Your task to perform on an android device: turn vacation reply on in the gmail app Image 0: 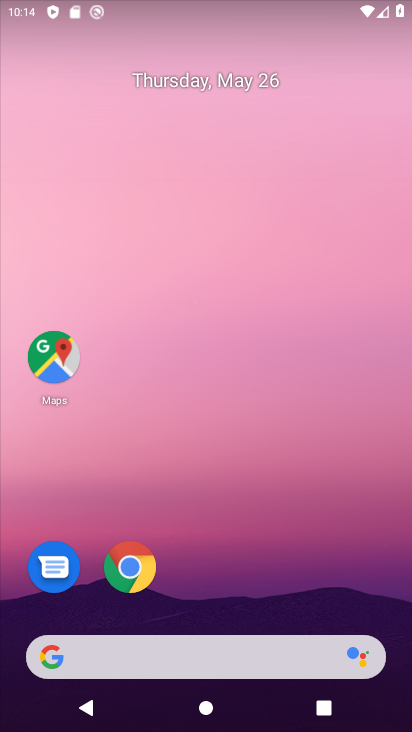
Step 0: drag from (229, 570) to (251, 0)
Your task to perform on an android device: turn vacation reply on in the gmail app Image 1: 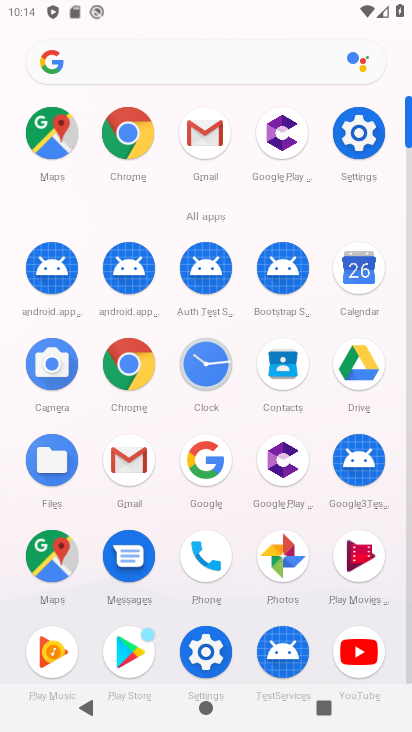
Step 1: click (127, 465)
Your task to perform on an android device: turn vacation reply on in the gmail app Image 2: 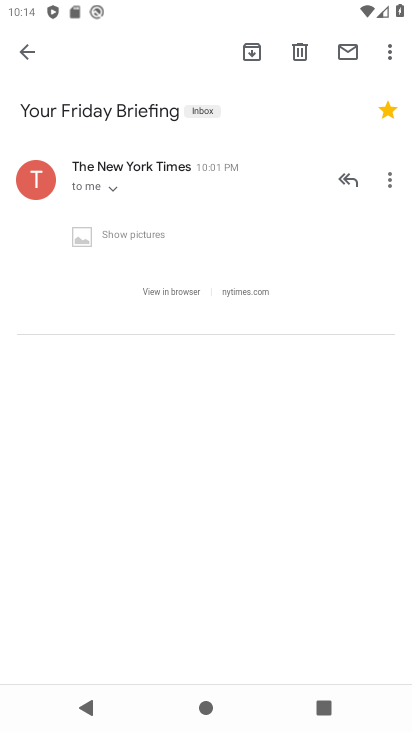
Step 2: click (25, 44)
Your task to perform on an android device: turn vacation reply on in the gmail app Image 3: 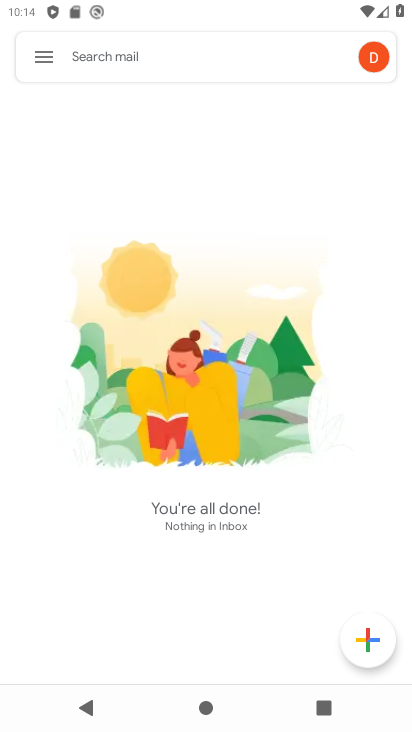
Step 3: click (41, 57)
Your task to perform on an android device: turn vacation reply on in the gmail app Image 4: 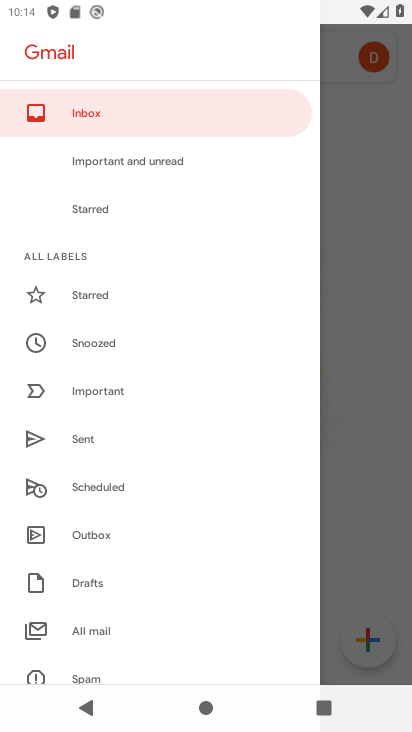
Step 4: drag from (164, 220) to (215, 20)
Your task to perform on an android device: turn vacation reply on in the gmail app Image 5: 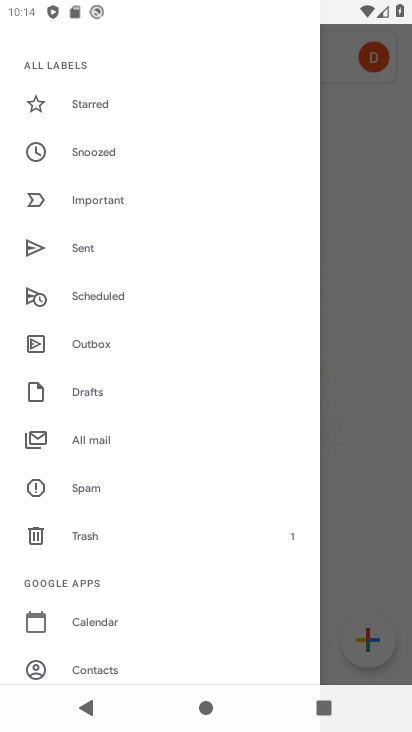
Step 5: drag from (110, 654) to (183, 169)
Your task to perform on an android device: turn vacation reply on in the gmail app Image 6: 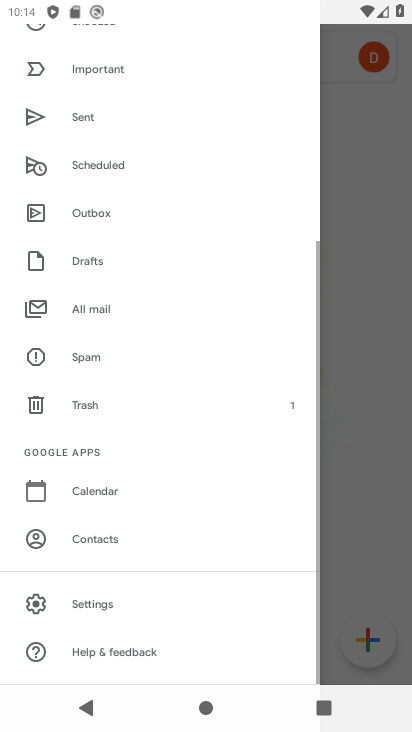
Step 6: click (106, 602)
Your task to perform on an android device: turn vacation reply on in the gmail app Image 7: 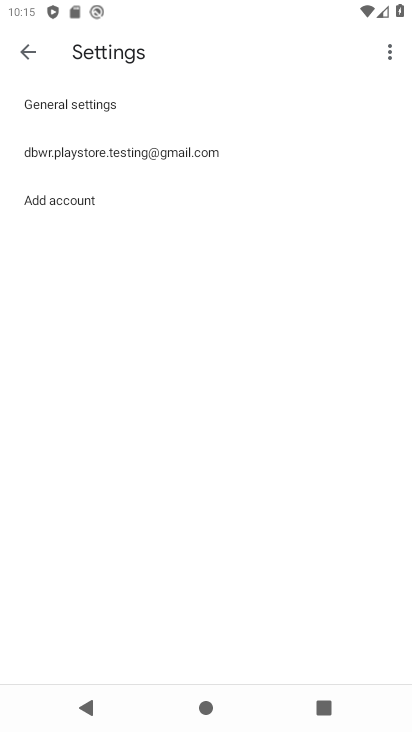
Step 7: click (83, 157)
Your task to perform on an android device: turn vacation reply on in the gmail app Image 8: 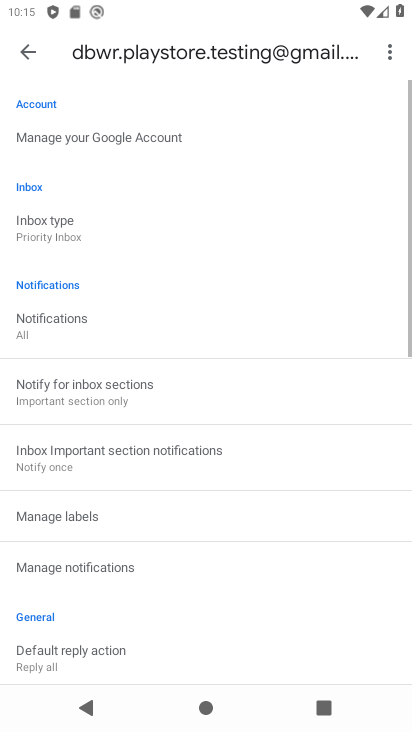
Step 8: drag from (179, 558) to (238, 32)
Your task to perform on an android device: turn vacation reply on in the gmail app Image 9: 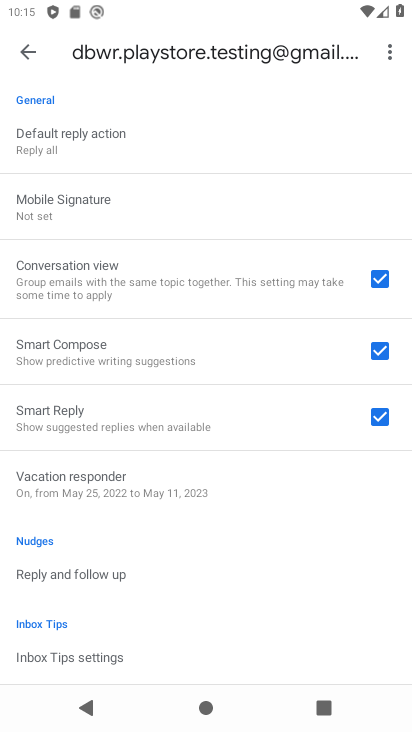
Step 9: drag from (217, 597) to (220, 134)
Your task to perform on an android device: turn vacation reply on in the gmail app Image 10: 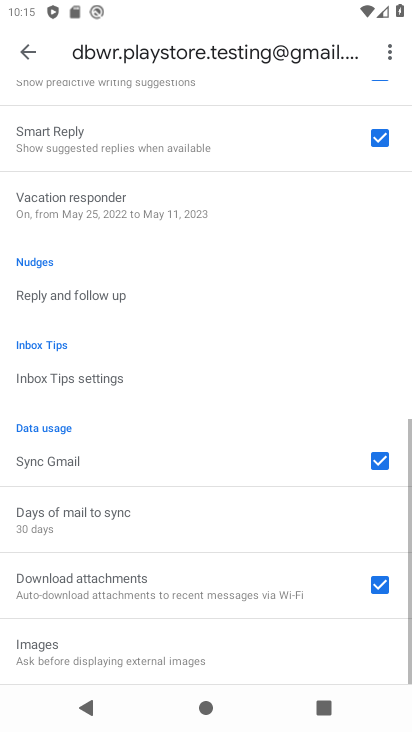
Step 10: click (145, 221)
Your task to perform on an android device: turn vacation reply on in the gmail app Image 11: 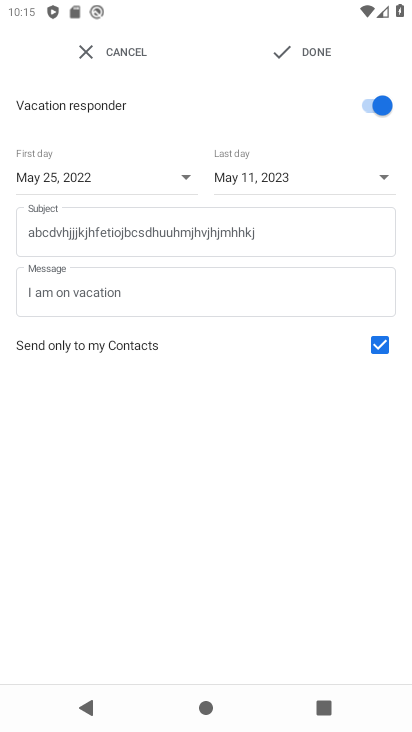
Step 11: click (309, 53)
Your task to perform on an android device: turn vacation reply on in the gmail app Image 12: 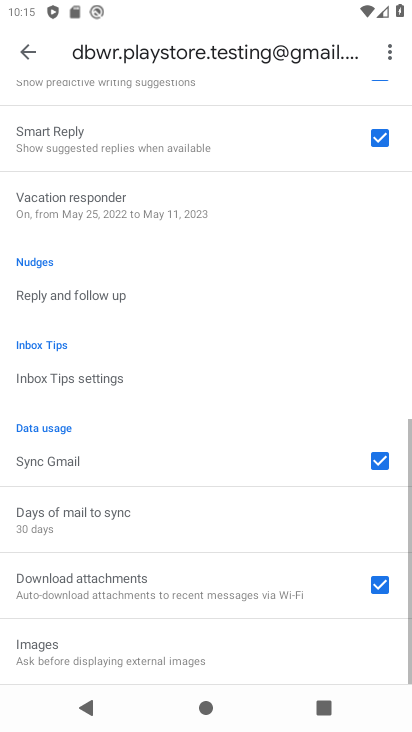
Step 12: task complete